Your task to perform on an android device: read, delete, or share a saved page in the chrome app Image 0: 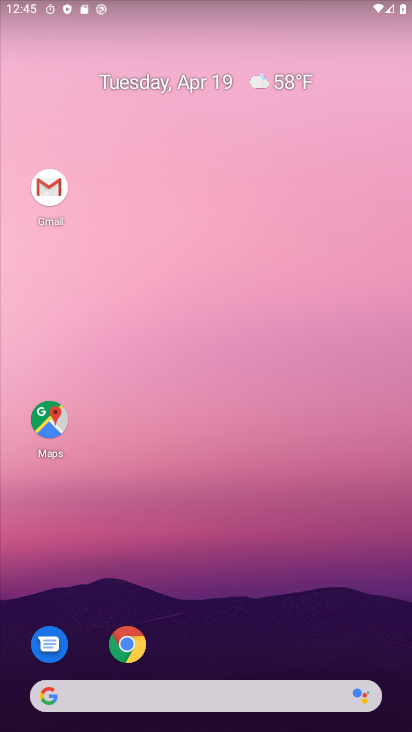
Step 0: click (131, 644)
Your task to perform on an android device: read, delete, or share a saved page in the chrome app Image 1: 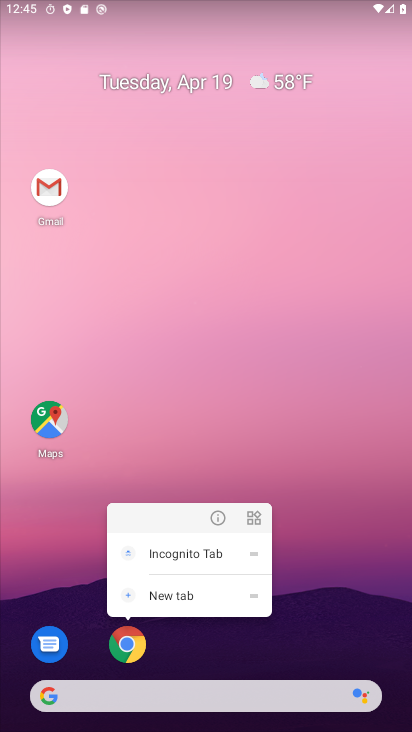
Step 1: click (131, 644)
Your task to perform on an android device: read, delete, or share a saved page in the chrome app Image 2: 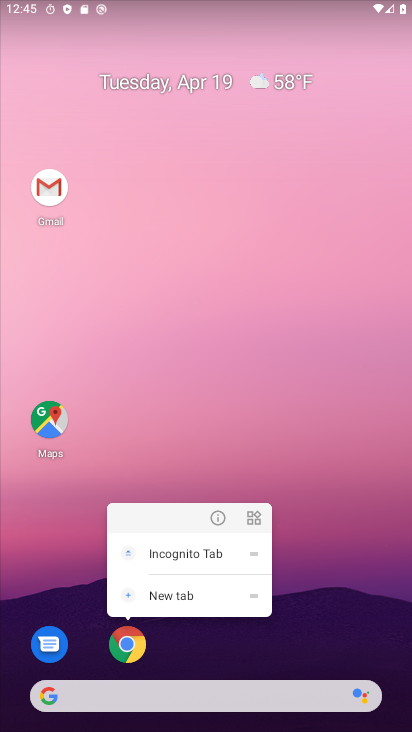
Step 2: click (131, 644)
Your task to perform on an android device: read, delete, or share a saved page in the chrome app Image 3: 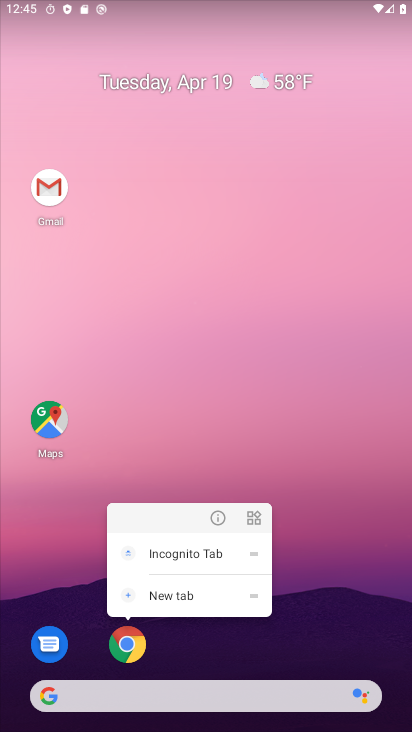
Step 3: click (133, 655)
Your task to perform on an android device: read, delete, or share a saved page in the chrome app Image 4: 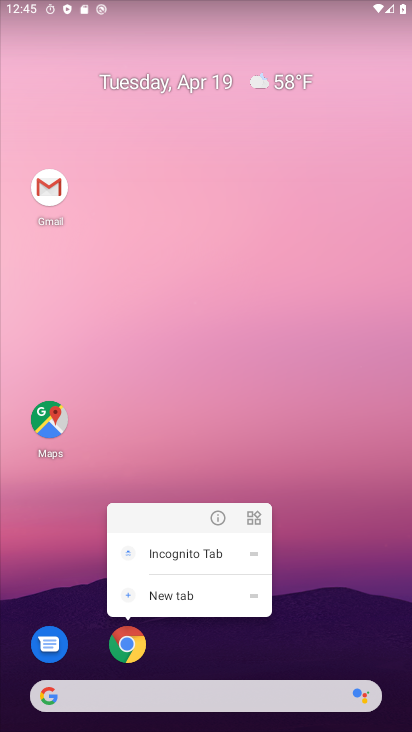
Step 4: click (133, 655)
Your task to perform on an android device: read, delete, or share a saved page in the chrome app Image 5: 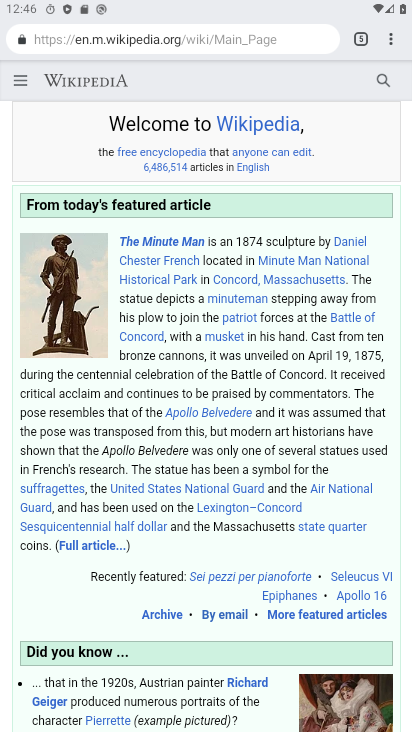
Step 5: click (394, 41)
Your task to perform on an android device: read, delete, or share a saved page in the chrome app Image 6: 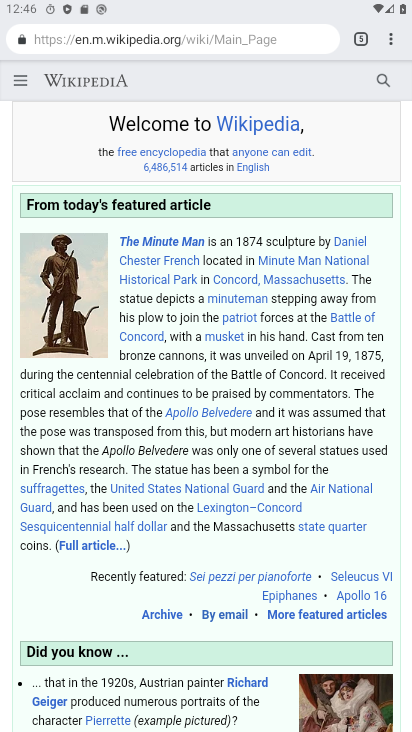
Step 6: click (389, 46)
Your task to perform on an android device: read, delete, or share a saved page in the chrome app Image 7: 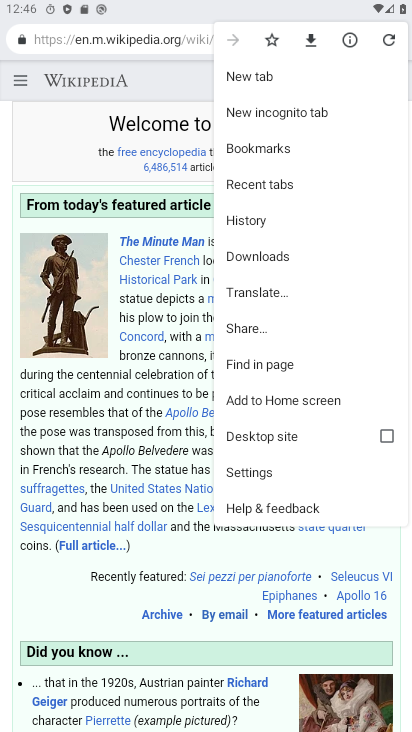
Step 7: click (269, 257)
Your task to perform on an android device: read, delete, or share a saved page in the chrome app Image 8: 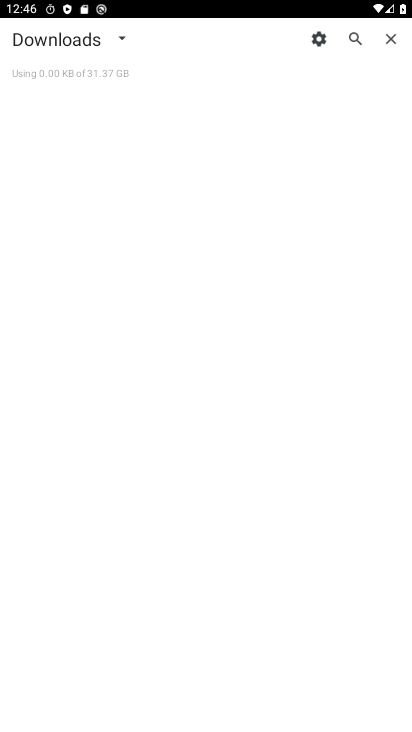
Step 8: task complete